Your task to perform on an android device: add a label to a message in the gmail app Image 0: 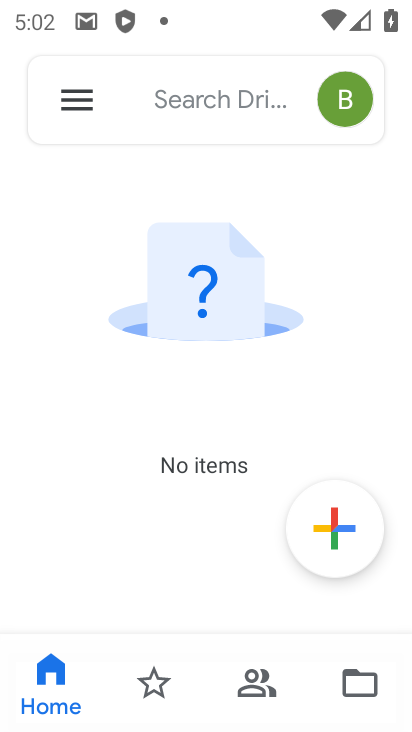
Step 0: press home button
Your task to perform on an android device: add a label to a message in the gmail app Image 1: 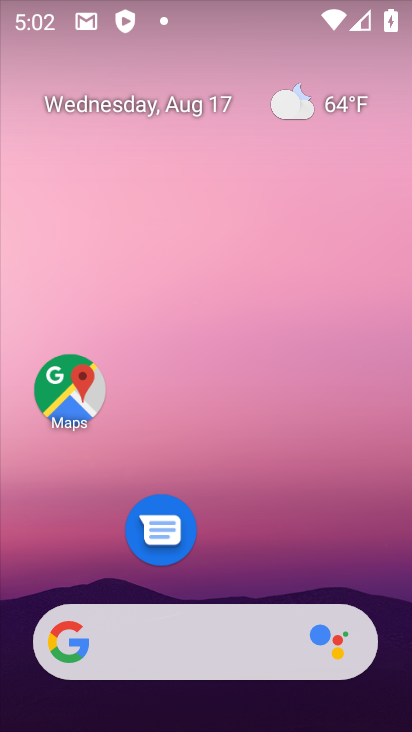
Step 1: drag from (207, 297) to (262, 37)
Your task to perform on an android device: add a label to a message in the gmail app Image 2: 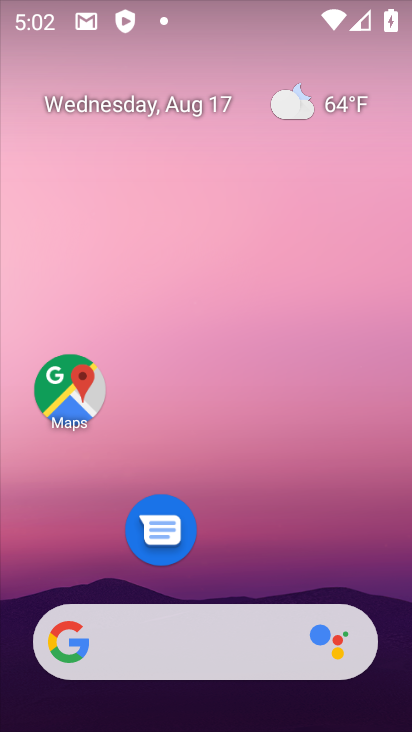
Step 2: click (193, 572)
Your task to perform on an android device: add a label to a message in the gmail app Image 3: 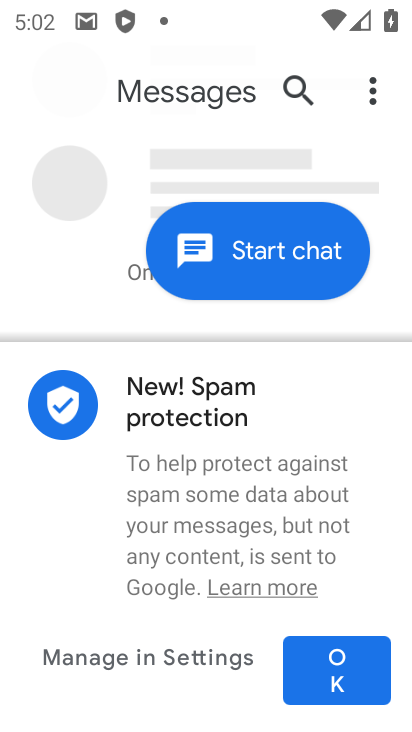
Step 3: press back button
Your task to perform on an android device: add a label to a message in the gmail app Image 4: 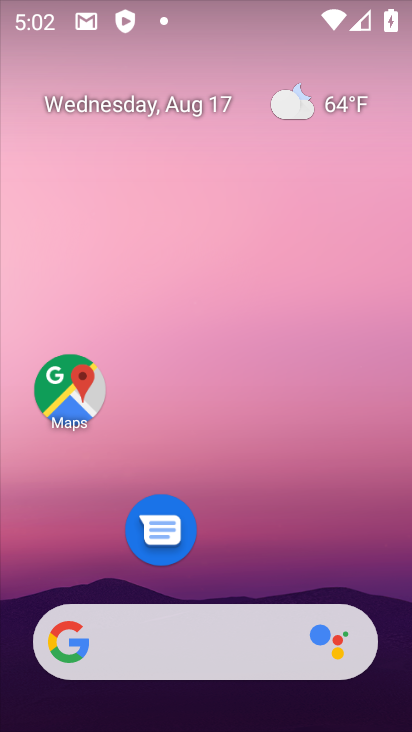
Step 4: drag from (216, 569) to (207, 107)
Your task to perform on an android device: add a label to a message in the gmail app Image 5: 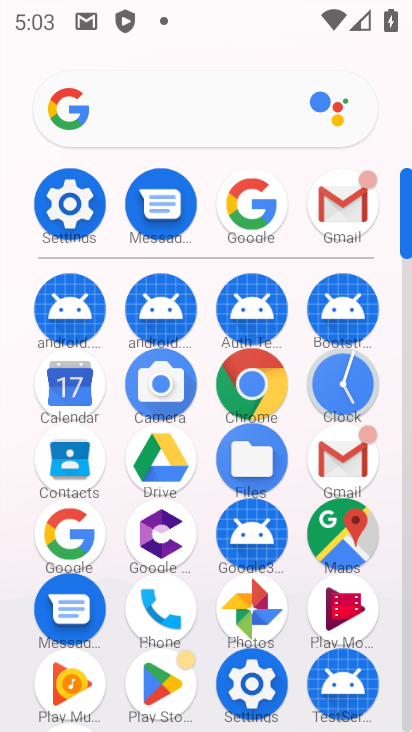
Step 5: click (347, 211)
Your task to perform on an android device: add a label to a message in the gmail app Image 6: 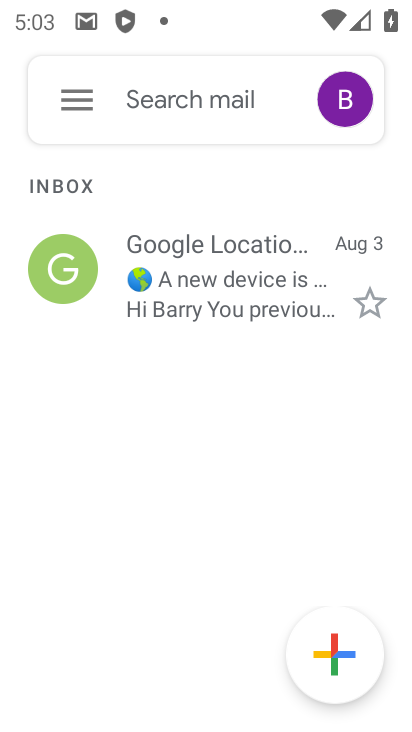
Step 6: click (302, 285)
Your task to perform on an android device: add a label to a message in the gmail app Image 7: 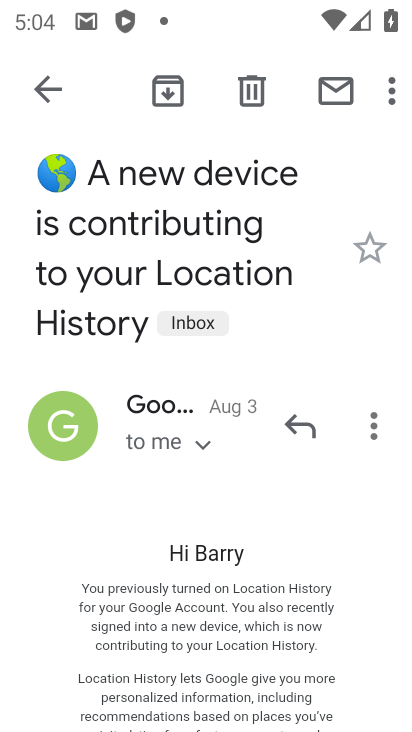
Step 7: click (45, 95)
Your task to perform on an android device: add a label to a message in the gmail app Image 8: 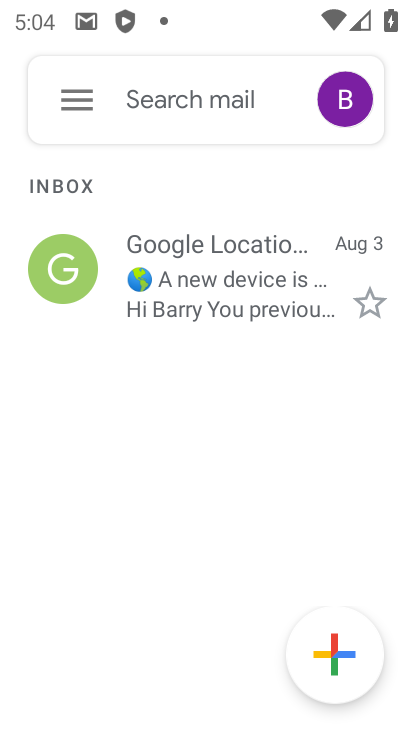
Step 8: click (72, 96)
Your task to perform on an android device: add a label to a message in the gmail app Image 9: 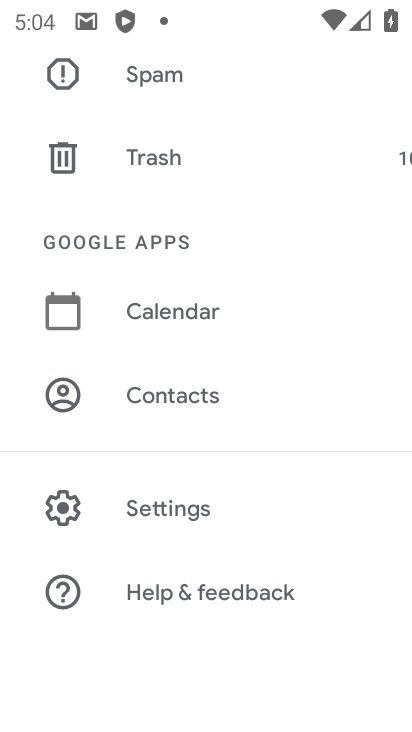
Step 9: drag from (240, 208) to (279, 726)
Your task to perform on an android device: add a label to a message in the gmail app Image 10: 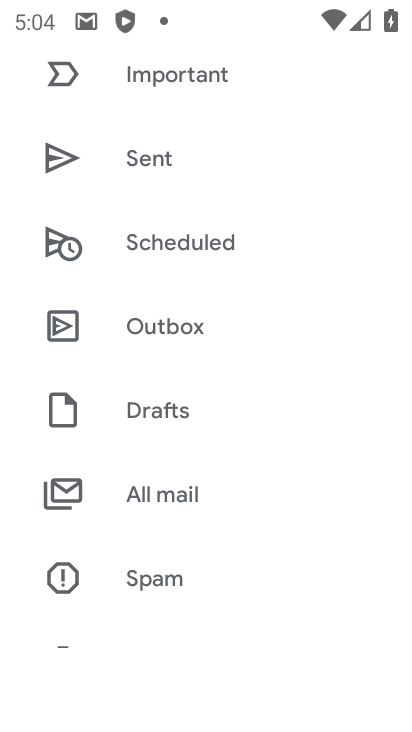
Step 10: drag from (278, 162) to (191, 729)
Your task to perform on an android device: add a label to a message in the gmail app Image 11: 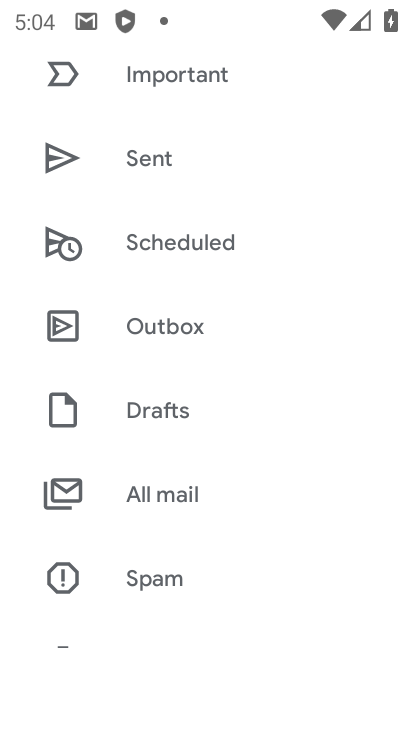
Step 11: click (180, 491)
Your task to perform on an android device: add a label to a message in the gmail app Image 12: 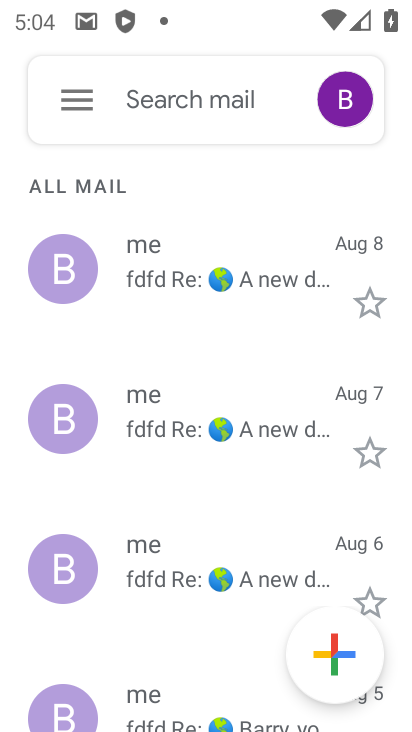
Step 12: click (191, 264)
Your task to perform on an android device: add a label to a message in the gmail app Image 13: 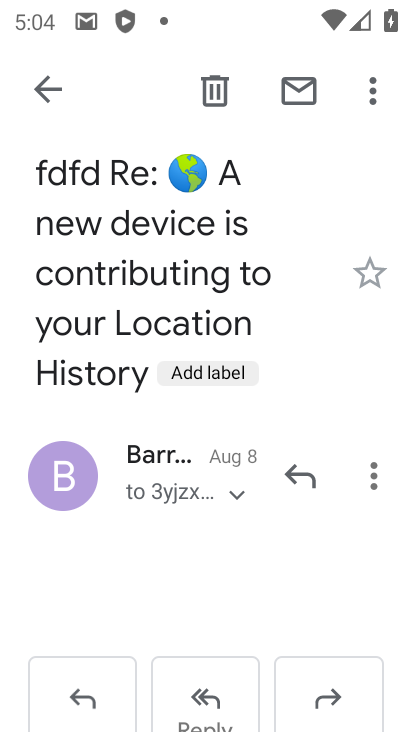
Step 13: click (208, 375)
Your task to perform on an android device: add a label to a message in the gmail app Image 14: 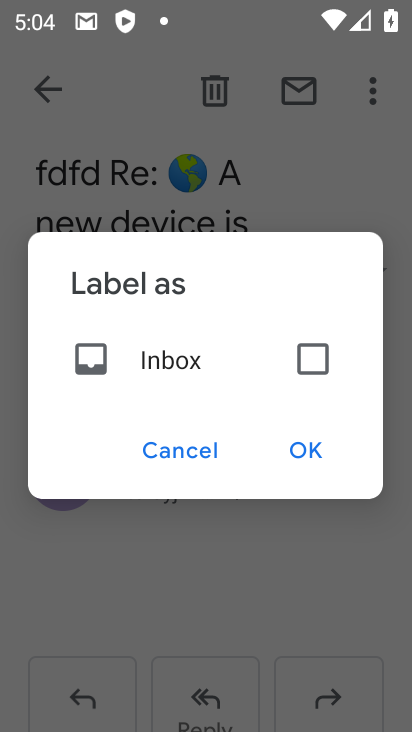
Step 14: click (313, 360)
Your task to perform on an android device: add a label to a message in the gmail app Image 15: 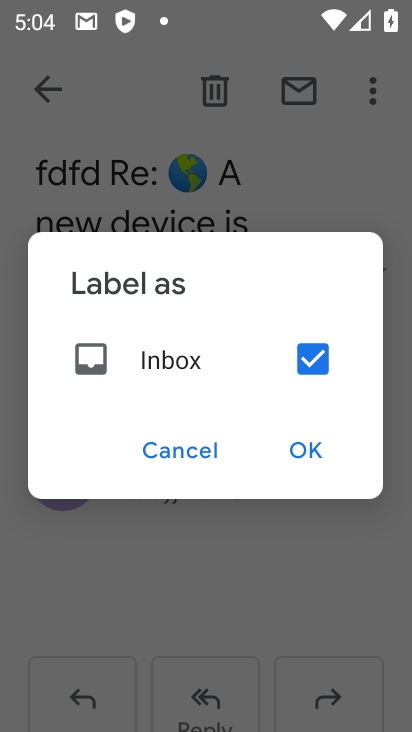
Step 15: click (313, 450)
Your task to perform on an android device: add a label to a message in the gmail app Image 16: 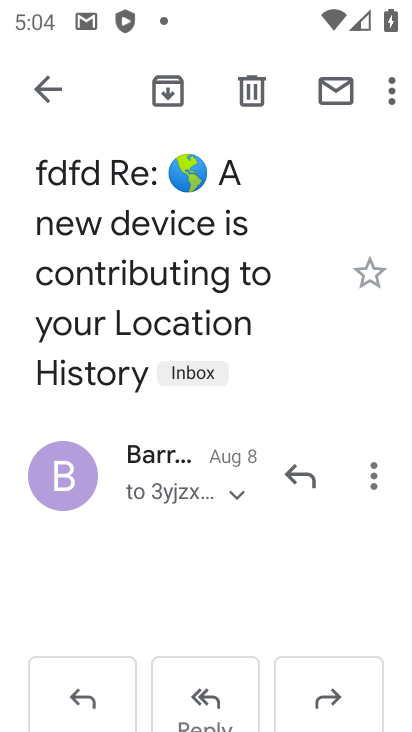
Step 16: task complete